Your task to perform on an android device: Open Android settings Image 0: 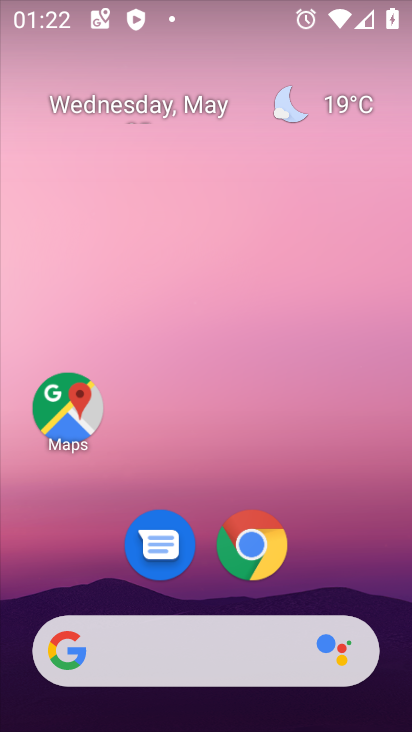
Step 0: drag from (327, 514) to (237, 81)
Your task to perform on an android device: Open Android settings Image 1: 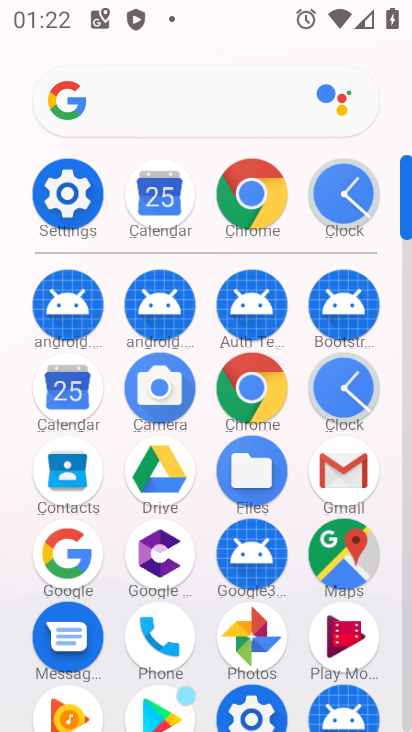
Step 1: click (59, 178)
Your task to perform on an android device: Open Android settings Image 2: 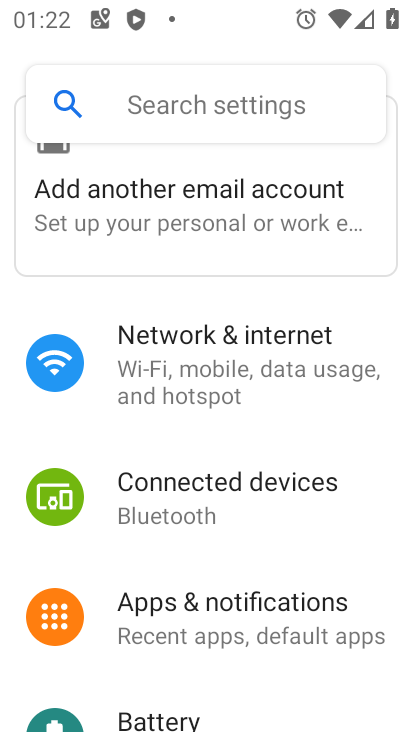
Step 2: task complete